Your task to perform on an android device: install app "VLC for Android" Image 0: 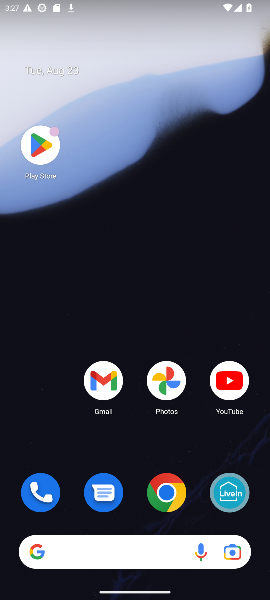
Step 0: click (35, 137)
Your task to perform on an android device: install app "VLC for Android" Image 1: 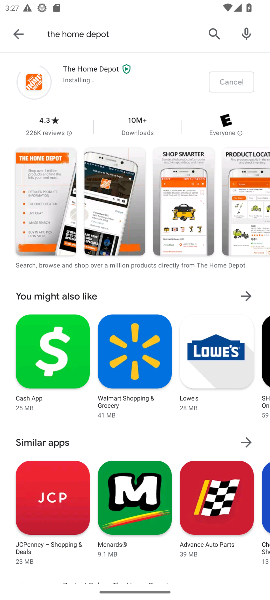
Step 1: click (216, 36)
Your task to perform on an android device: install app "VLC for Android" Image 2: 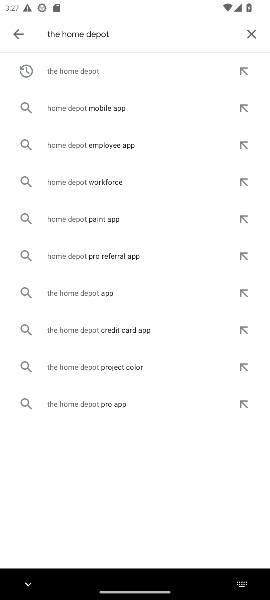
Step 2: click (247, 36)
Your task to perform on an android device: install app "VLC for Android" Image 3: 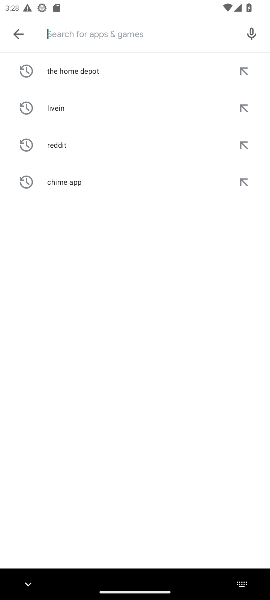
Step 3: type "vlc "
Your task to perform on an android device: install app "VLC for Android" Image 4: 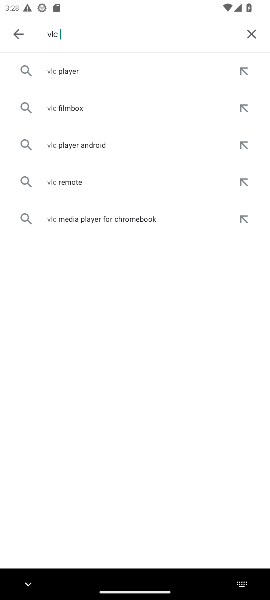
Step 4: click (161, 75)
Your task to perform on an android device: install app "VLC for Android" Image 5: 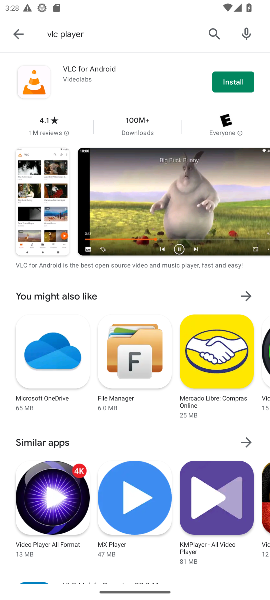
Step 5: click (221, 84)
Your task to perform on an android device: install app "VLC for Android" Image 6: 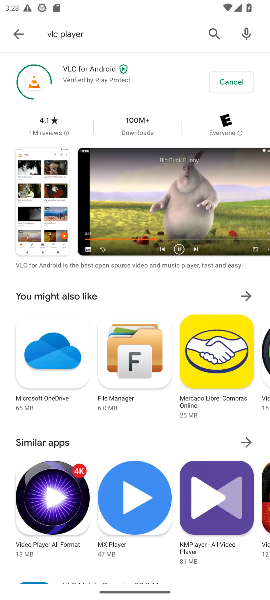
Step 6: task complete